Your task to perform on an android device: Open Amazon Image 0: 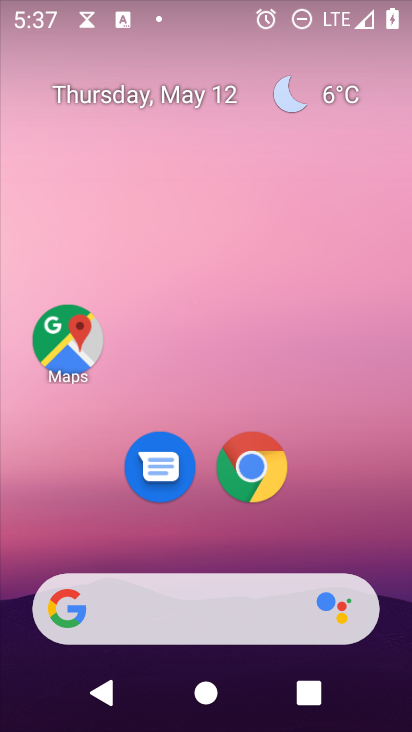
Step 0: drag from (300, 611) to (332, 15)
Your task to perform on an android device: Open Amazon Image 1: 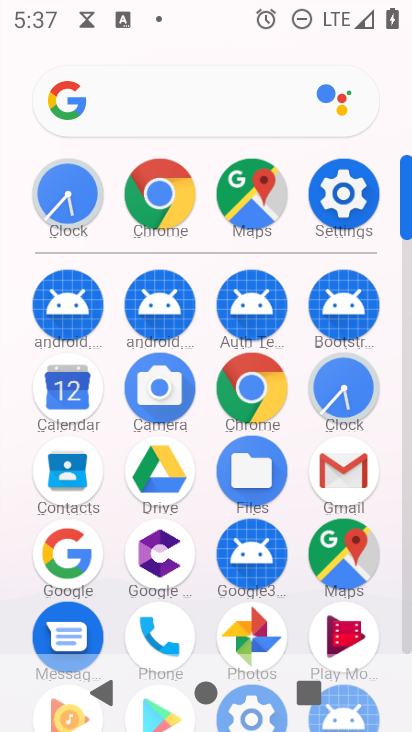
Step 1: click (250, 388)
Your task to perform on an android device: Open Amazon Image 2: 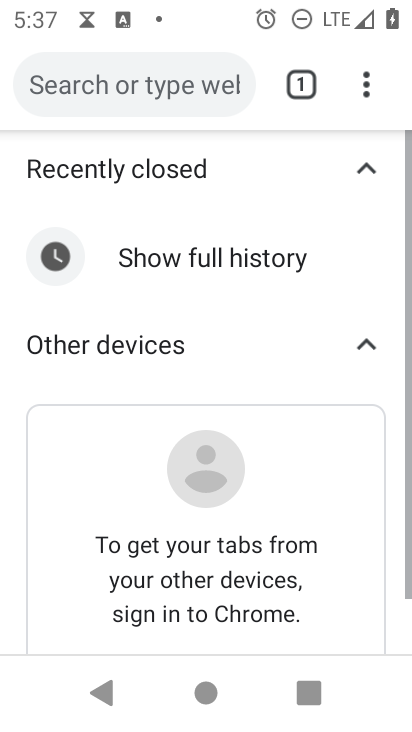
Step 2: drag from (371, 80) to (209, 165)
Your task to perform on an android device: Open Amazon Image 3: 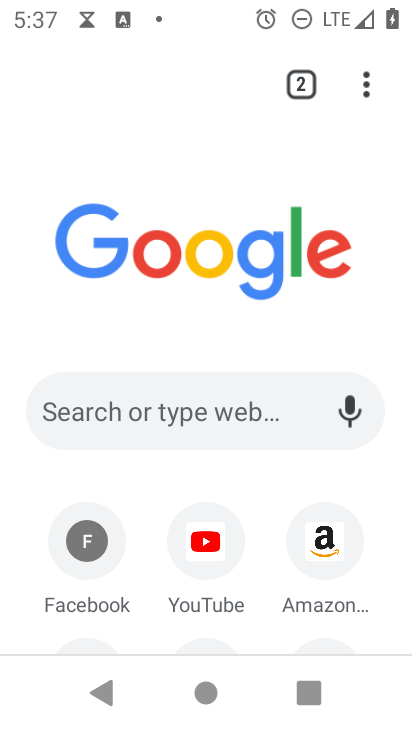
Step 3: drag from (271, 581) to (322, 279)
Your task to perform on an android device: Open Amazon Image 4: 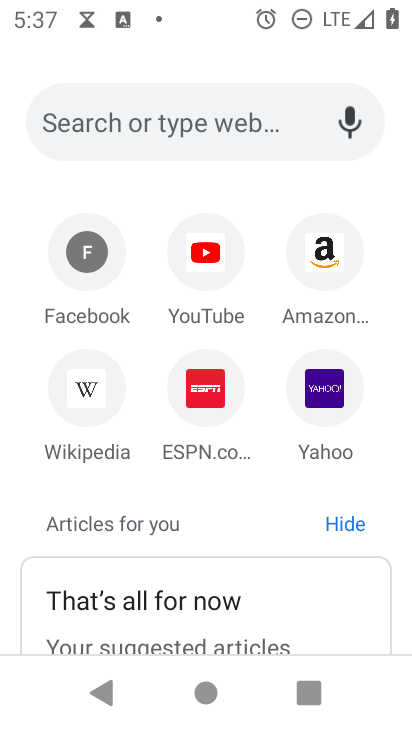
Step 4: click (331, 254)
Your task to perform on an android device: Open Amazon Image 5: 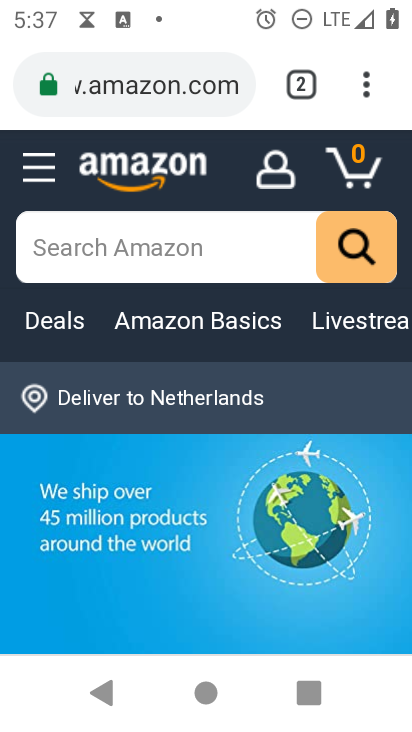
Step 5: task complete